Your task to perform on an android device: toggle wifi Image 0: 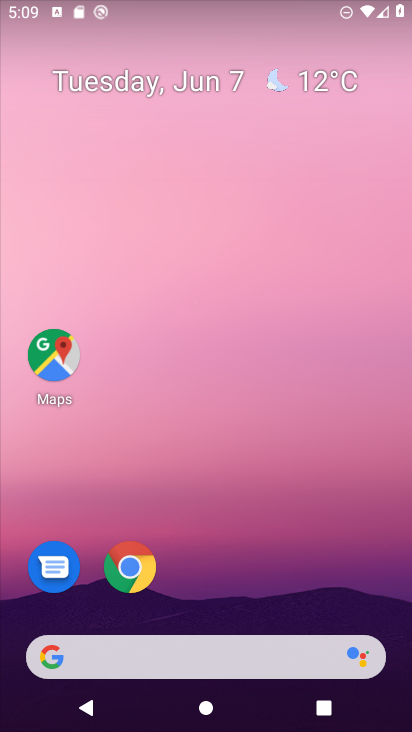
Step 0: drag from (229, 660) to (282, 98)
Your task to perform on an android device: toggle wifi Image 1: 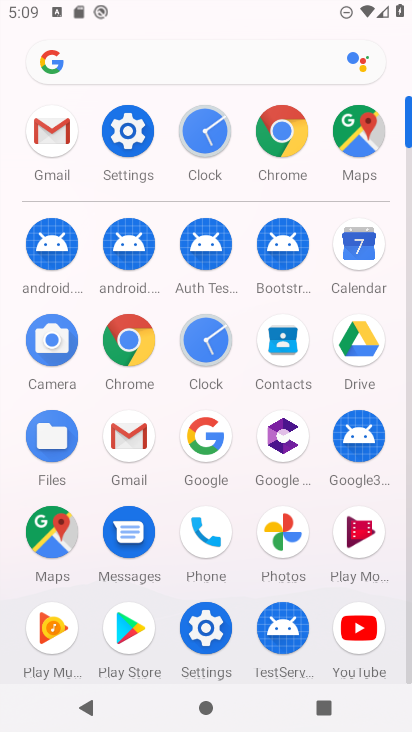
Step 1: click (128, 121)
Your task to perform on an android device: toggle wifi Image 2: 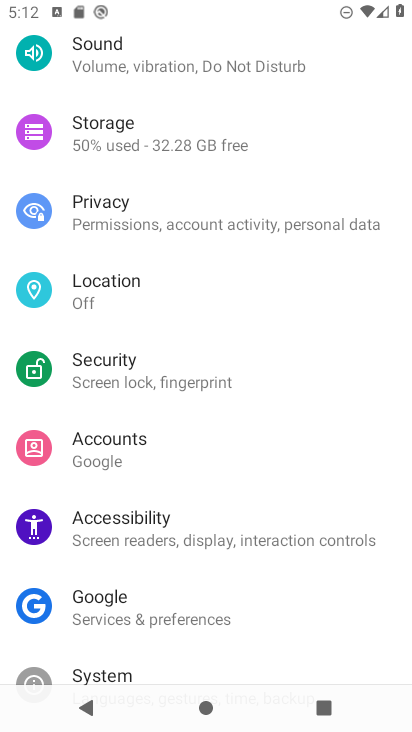
Step 2: drag from (202, 149) to (203, 609)
Your task to perform on an android device: toggle wifi Image 3: 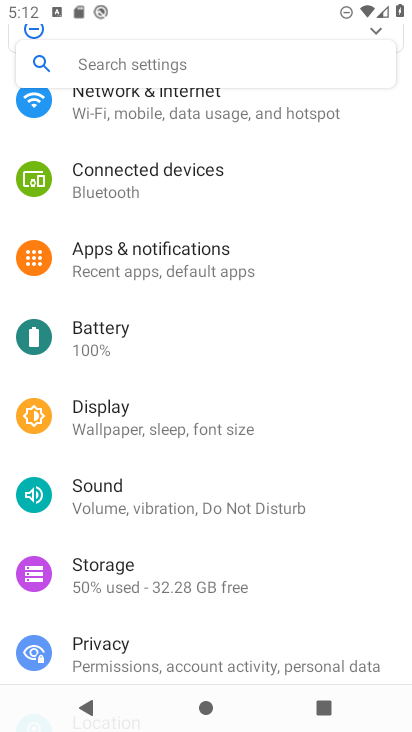
Step 3: drag from (161, 166) to (165, 624)
Your task to perform on an android device: toggle wifi Image 4: 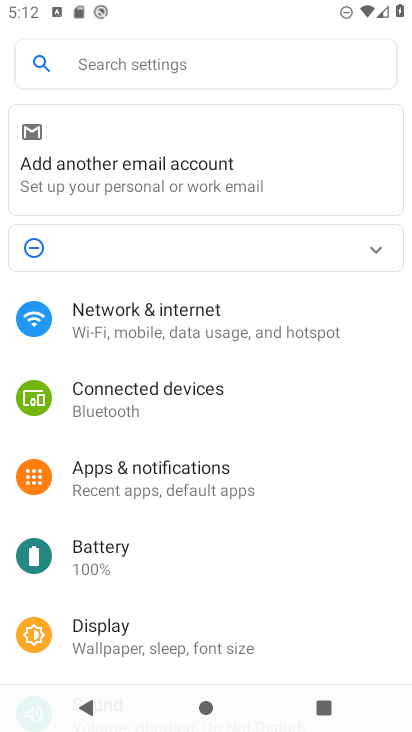
Step 4: click (149, 329)
Your task to perform on an android device: toggle wifi Image 5: 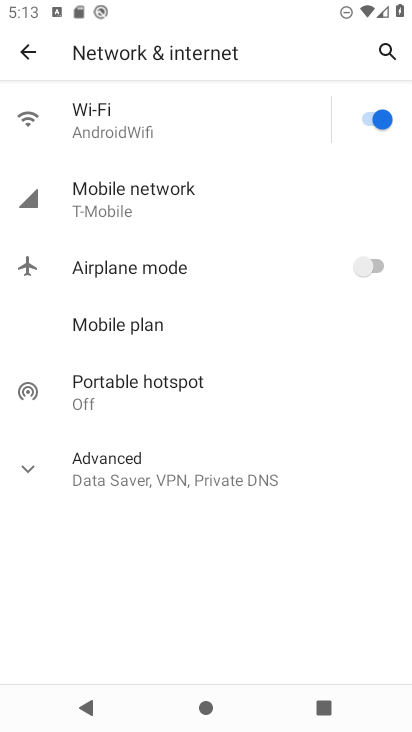
Step 5: click (386, 125)
Your task to perform on an android device: toggle wifi Image 6: 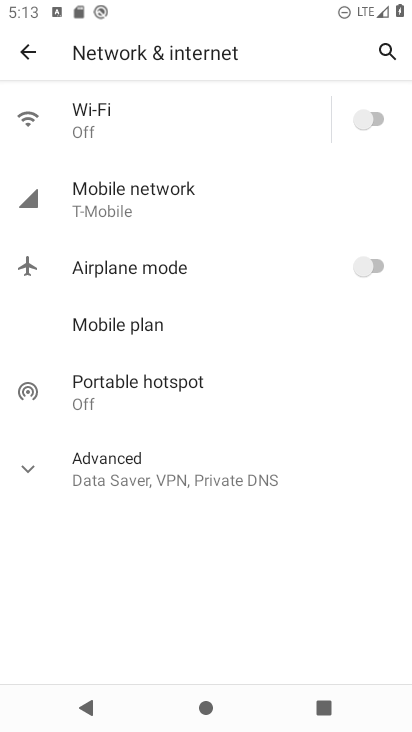
Step 6: task complete